Your task to perform on an android device: install app "Facebook Messenger" Image 0: 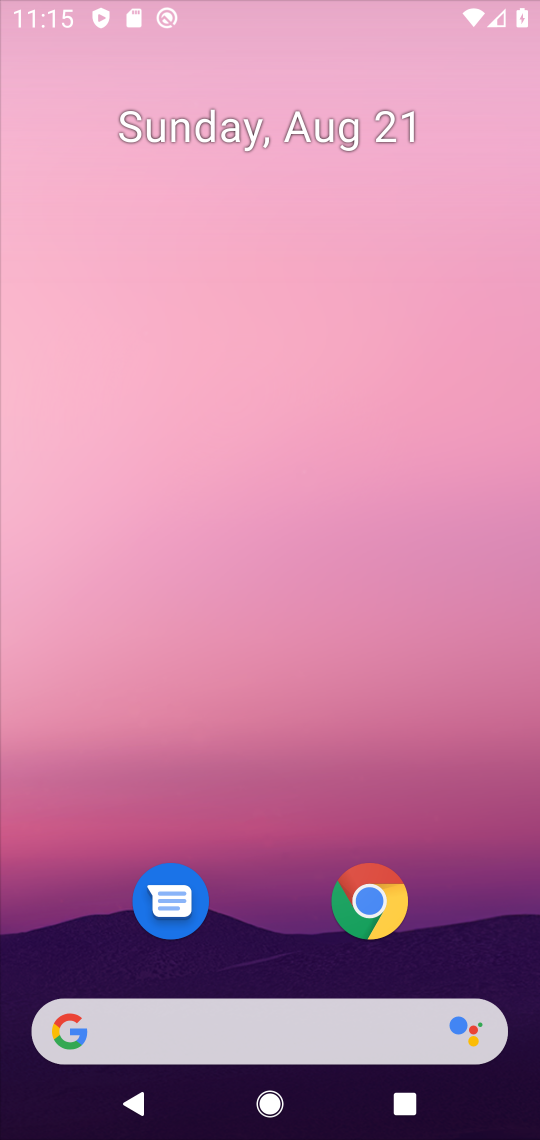
Step 0: click (291, 32)
Your task to perform on an android device: install app "Facebook Messenger" Image 1: 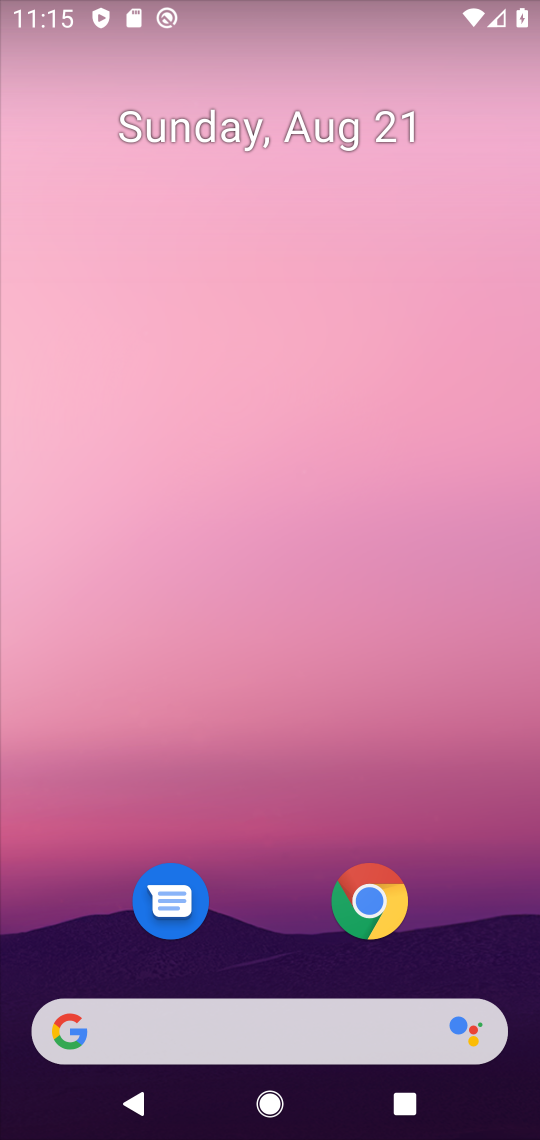
Step 1: press home button
Your task to perform on an android device: install app "Facebook Messenger" Image 2: 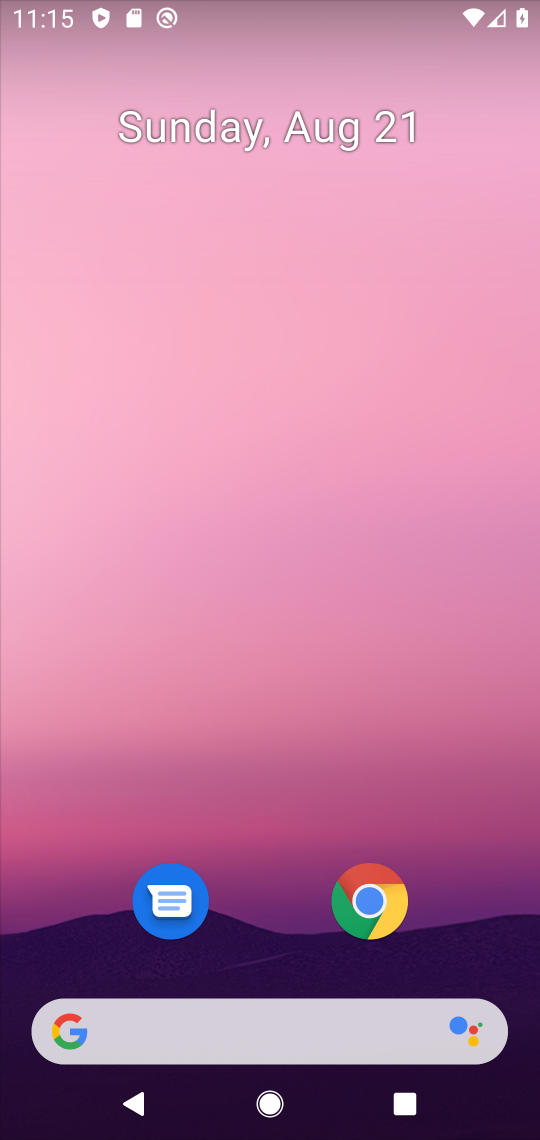
Step 2: drag from (251, 967) to (242, 162)
Your task to perform on an android device: install app "Facebook Messenger" Image 3: 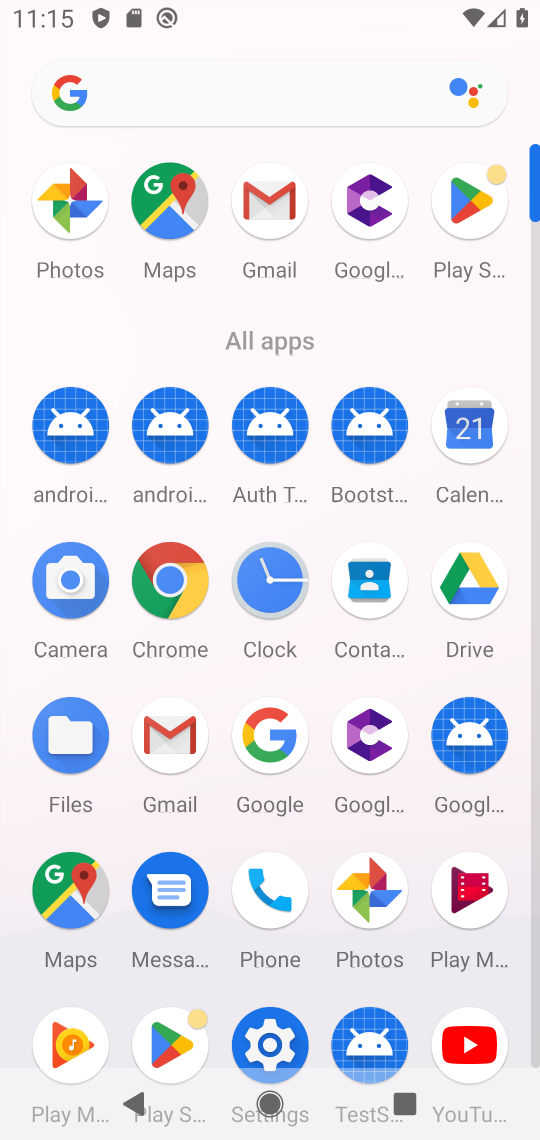
Step 3: click (193, 1031)
Your task to perform on an android device: install app "Facebook Messenger" Image 4: 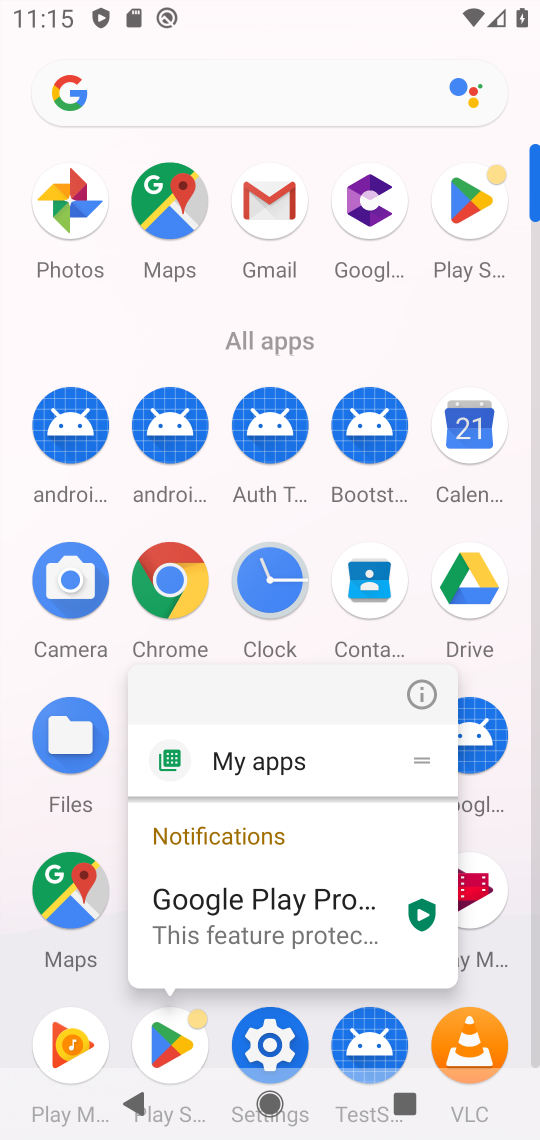
Step 4: click (185, 1038)
Your task to perform on an android device: install app "Facebook Messenger" Image 5: 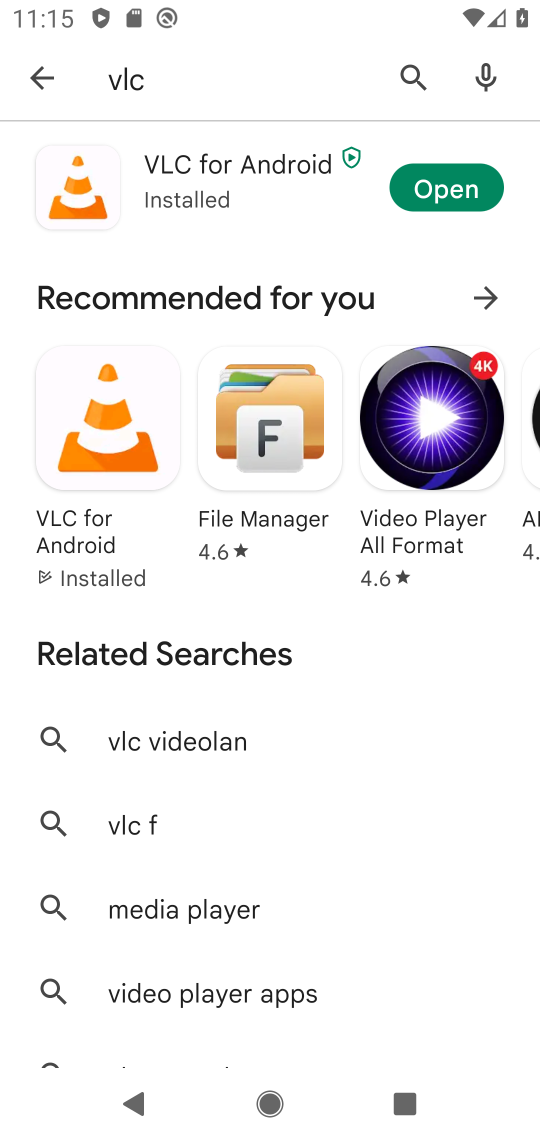
Step 5: click (408, 81)
Your task to perform on an android device: install app "Facebook Messenger" Image 6: 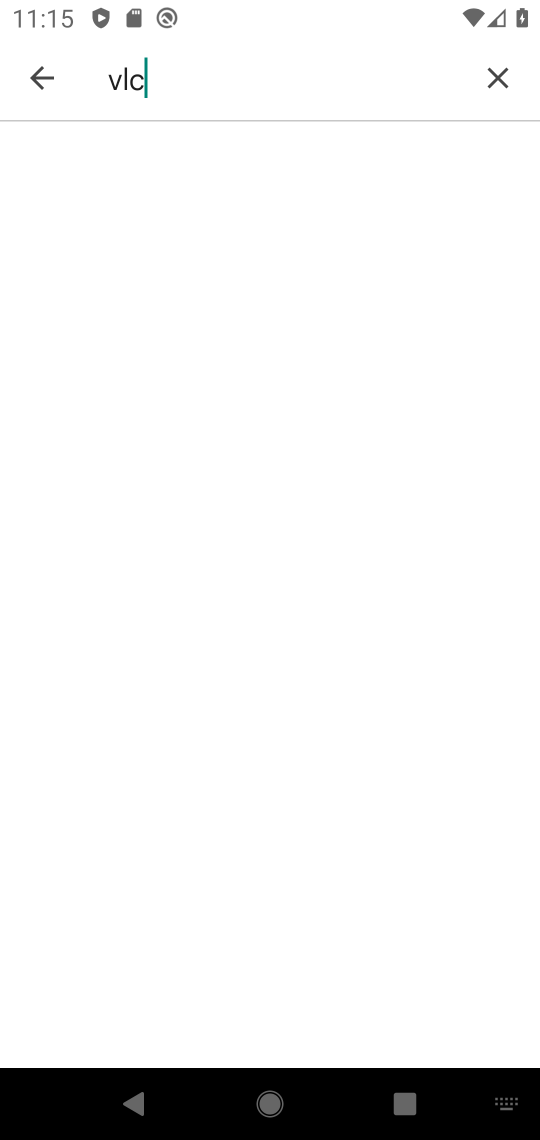
Step 6: click (501, 76)
Your task to perform on an android device: install app "Facebook Messenger" Image 7: 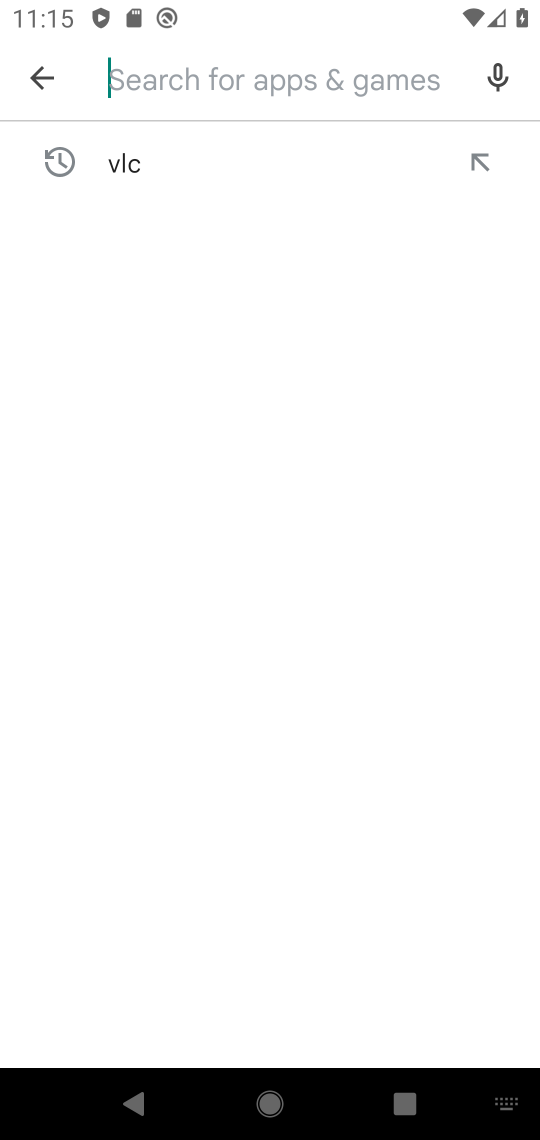
Step 7: type "facebook"
Your task to perform on an android device: install app "Facebook Messenger" Image 8: 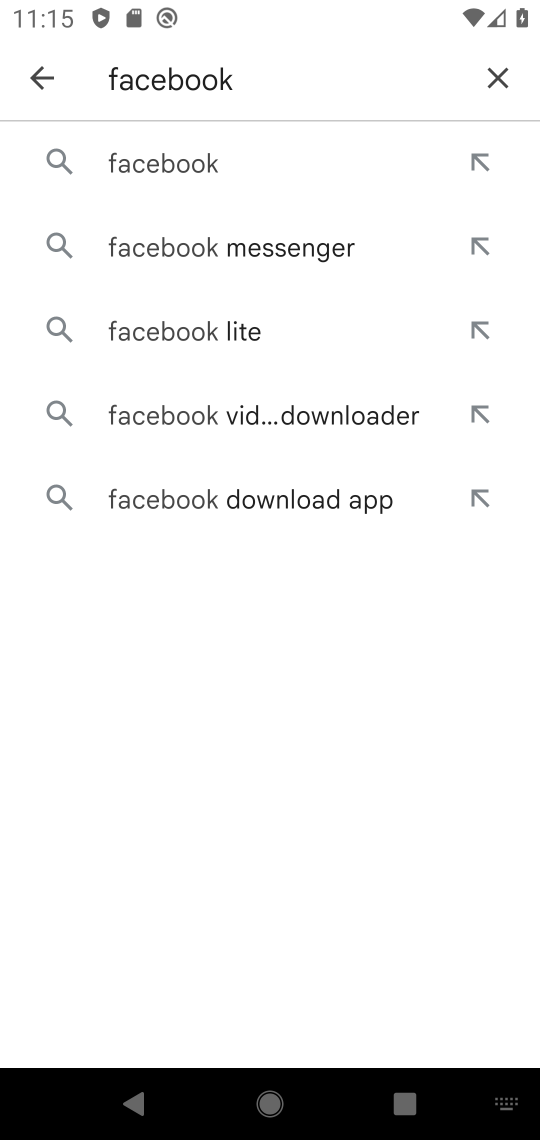
Step 8: click (271, 234)
Your task to perform on an android device: install app "Facebook Messenger" Image 9: 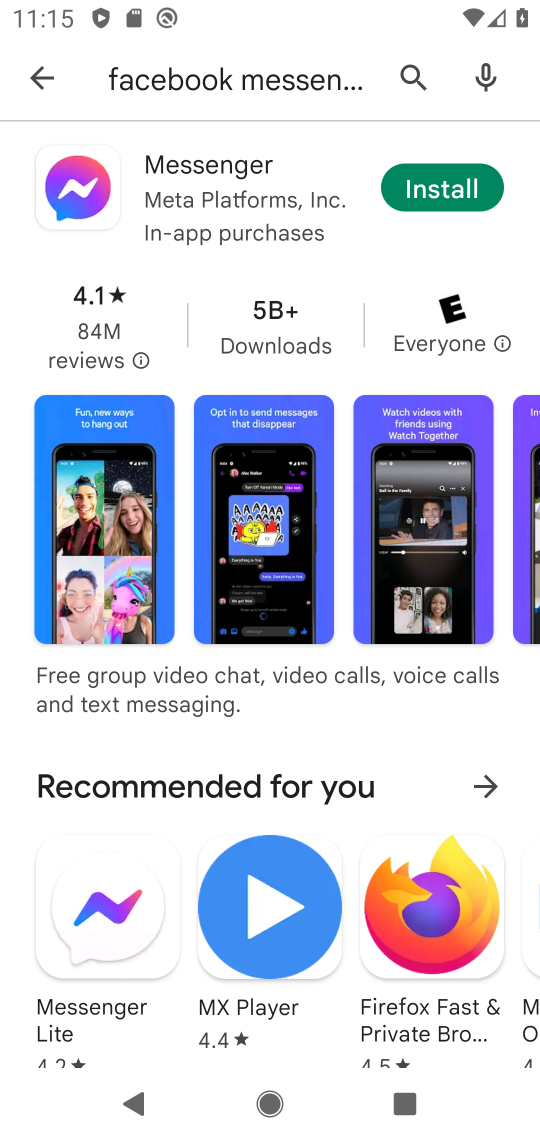
Step 9: click (453, 167)
Your task to perform on an android device: install app "Facebook Messenger" Image 10: 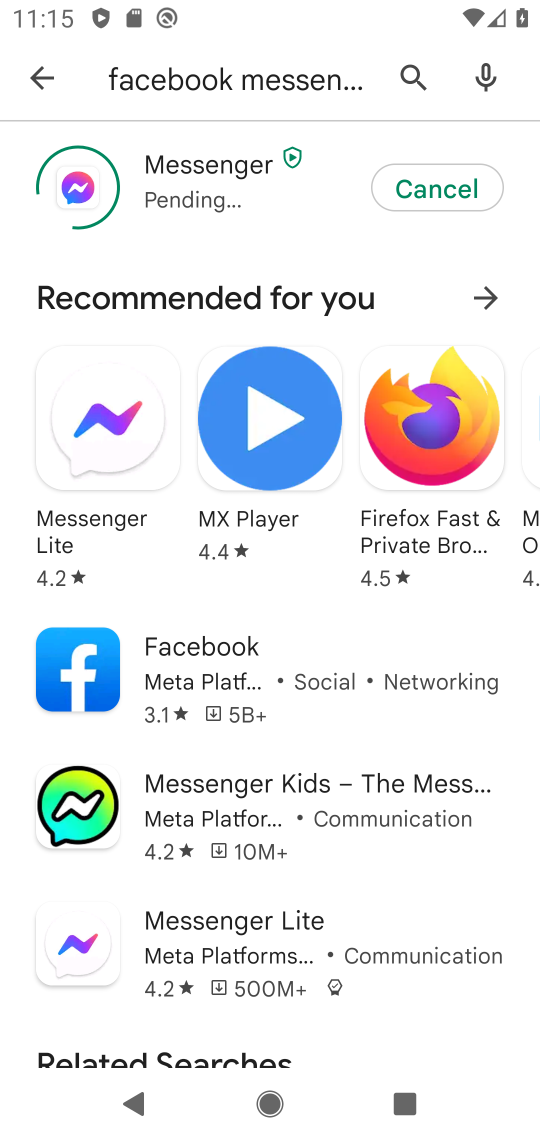
Step 10: task complete